Your task to perform on an android device: clear history in the chrome app Image 0: 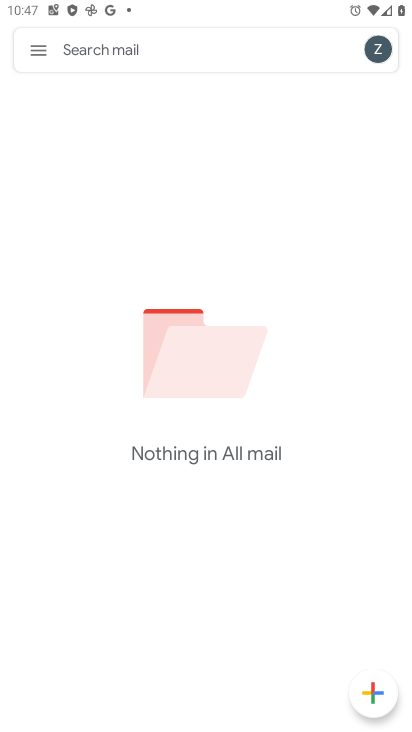
Step 0: press home button
Your task to perform on an android device: clear history in the chrome app Image 1: 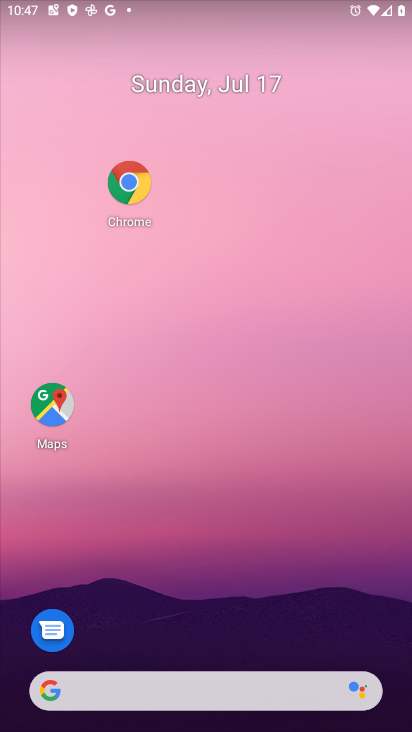
Step 1: click (139, 178)
Your task to perform on an android device: clear history in the chrome app Image 2: 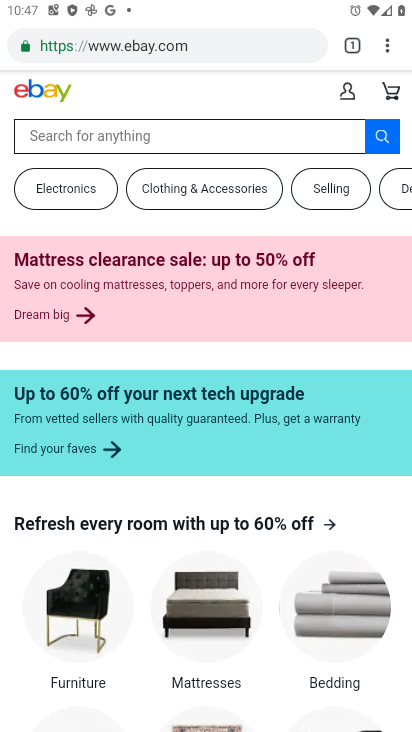
Step 2: click (384, 53)
Your task to perform on an android device: clear history in the chrome app Image 3: 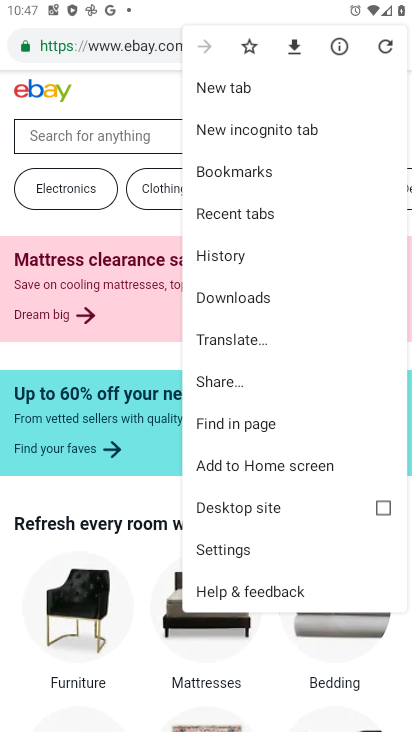
Step 3: click (223, 255)
Your task to perform on an android device: clear history in the chrome app Image 4: 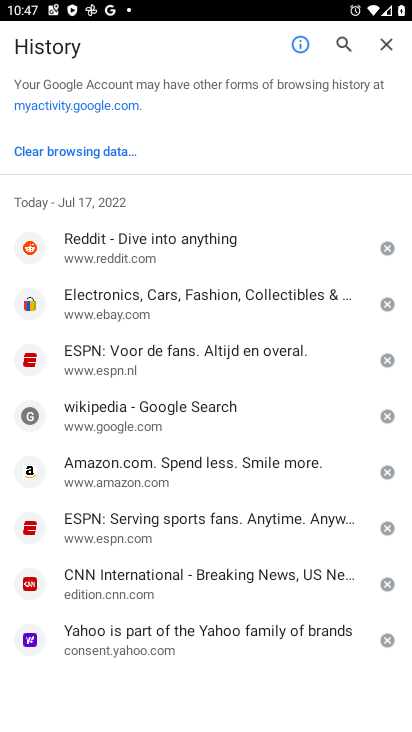
Step 4: click (32, 151)
Your task to perform on an android device: clear history in the chrome app Image 5: 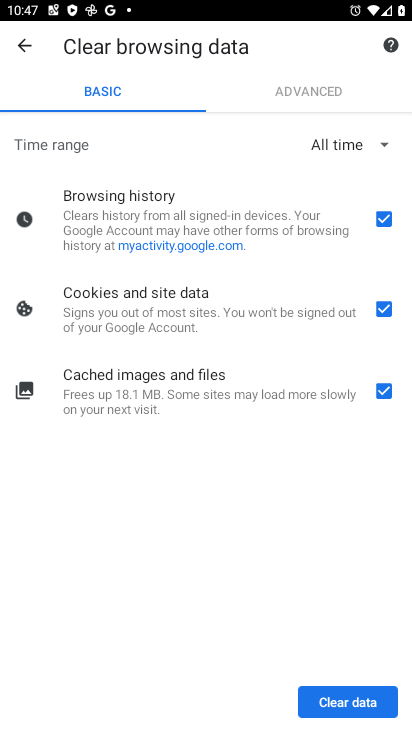
Step 5: click (331, 699)
Your task to perform on an android device: clear history in the chrome app Image 6: 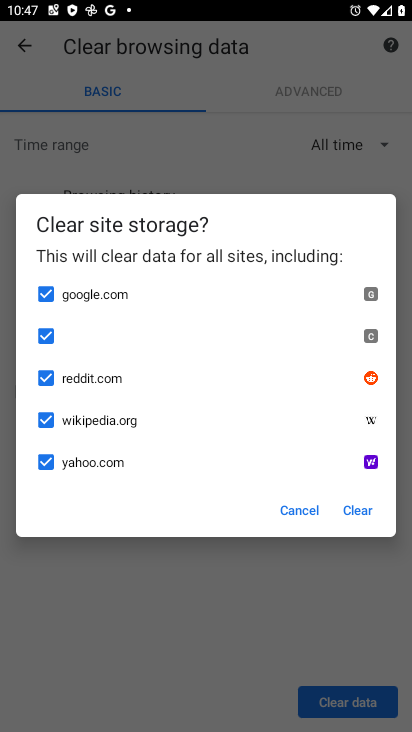
Step 6: click (355, 506)
Your task to perform on an android device: clear history in the chrome app Image 7: 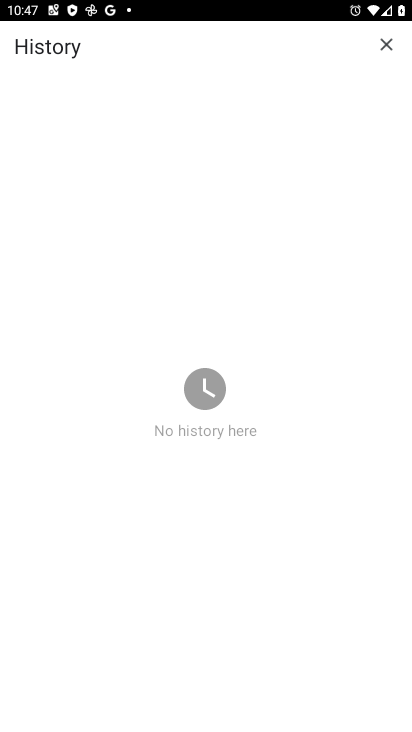
Step 7: task complete